Your task to perform on an android device: see sites visited before in the chrome app Image 0: 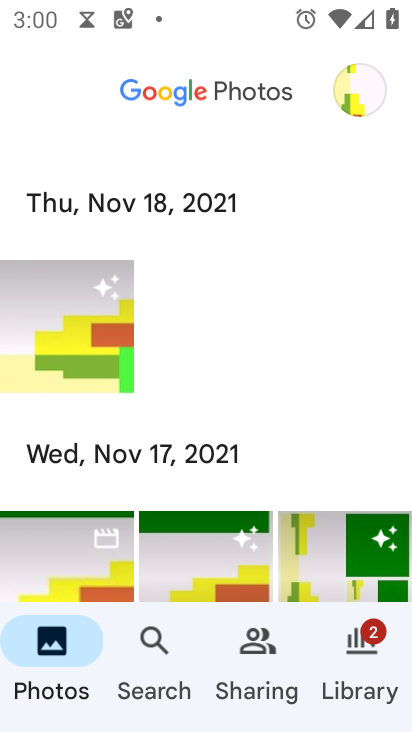
Step 0: press home button
Your task to perform on an android device: see sites visited before in the chrome app Image 1: 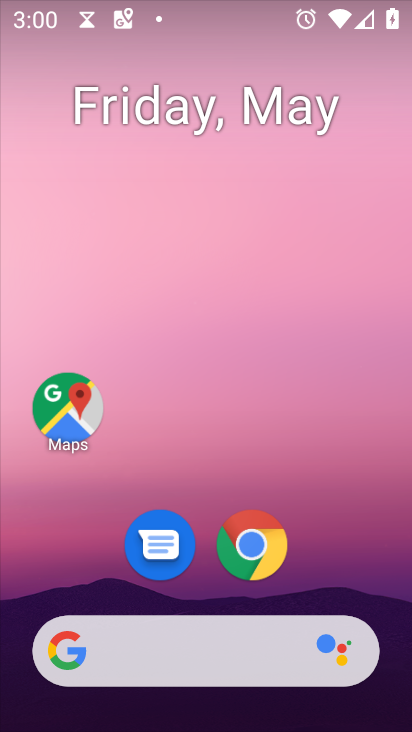
Step 1: click (254, 550)
Your task to perform on an android device: see sites visited before in the chrome app Image 2: 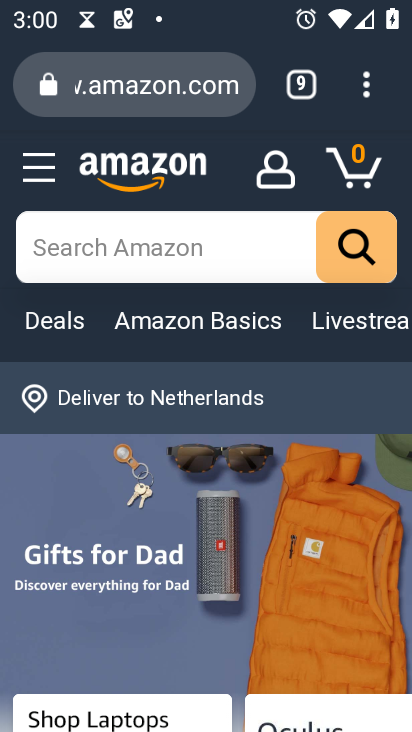
Step 2: click (367, 86)
Your task to perform on an android device: see sites visited before in the chrome app Image 3: 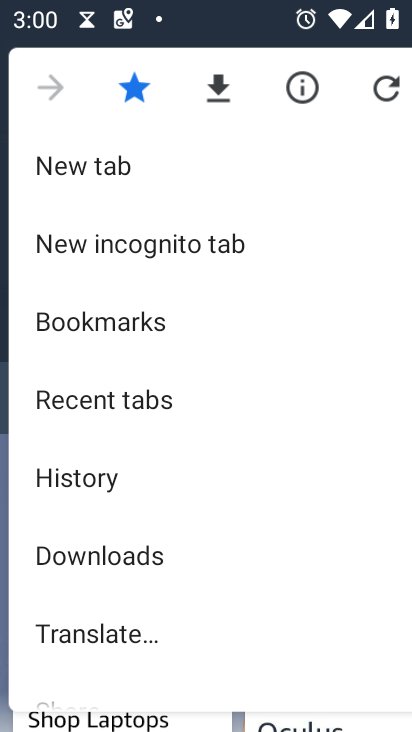
Step 3: click (110, 486)
Your task to perform on an android device: see sites visited before in the chrome app Image 4: 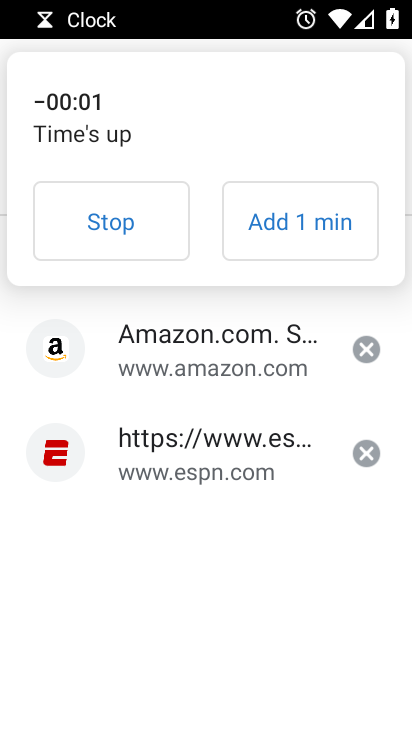
Step 4: task complete